Your task to perform on an android device: set an alarm Image 0: 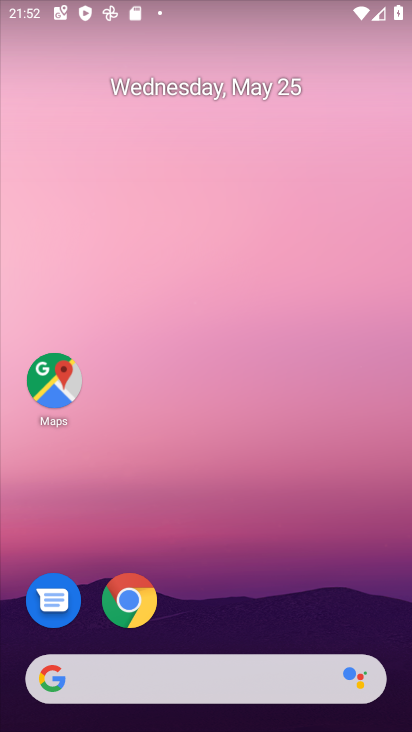
Step 0: drag from (324, 616) to (338, 254)
Your task to perform on an android device: set an alarm Image 1: 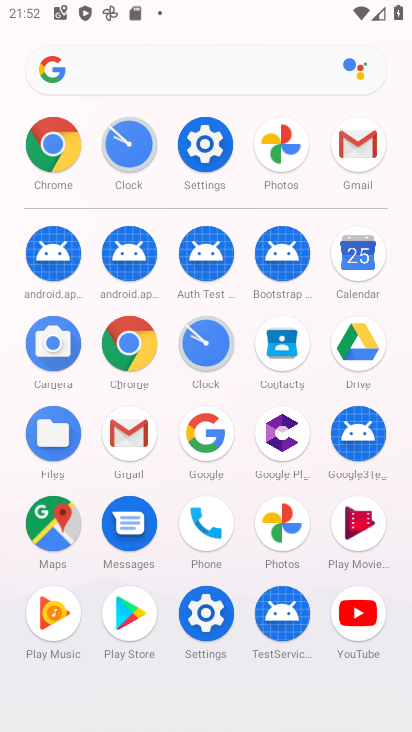
Step 1: click (205, 347)
Your task to perform on an android device: set an alarm Image 2: 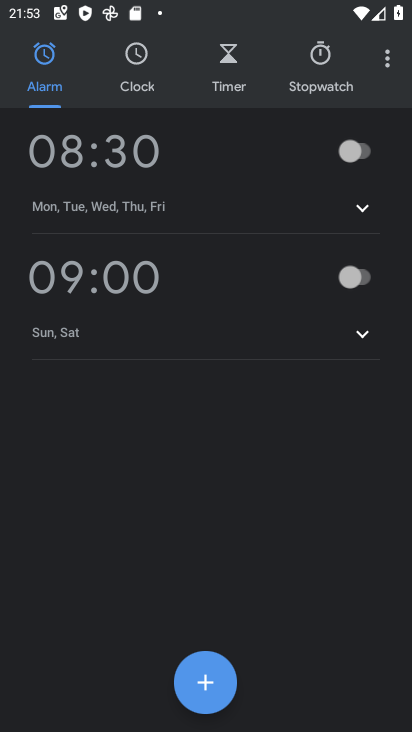
Step 2: click (218, 686)
Your task to perform on an android device: set an alarm Image 3: 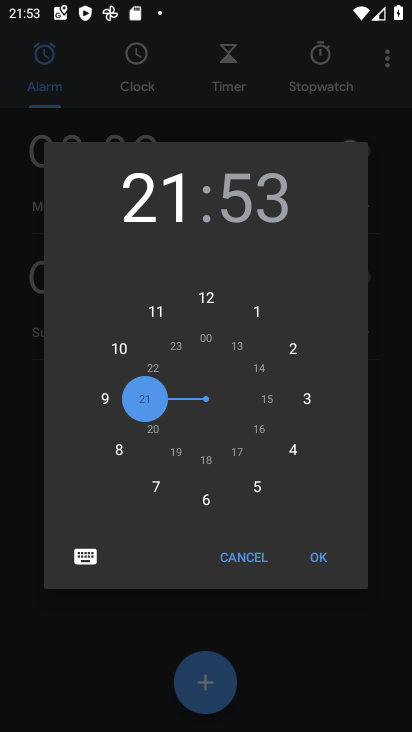
Step 3: click (324, 559)
Your task to perform on an android device: set an alarm Image 4: 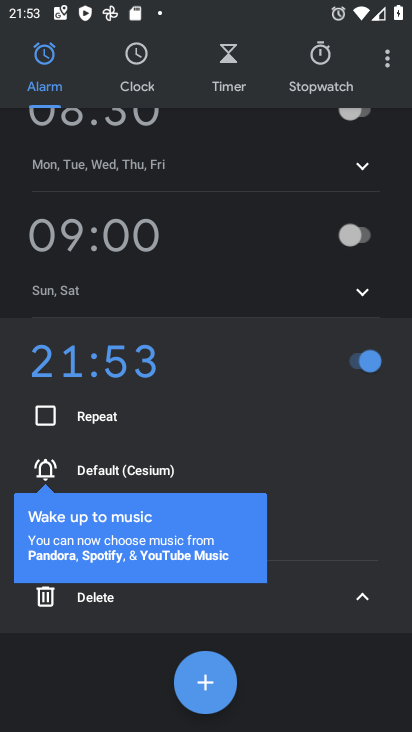
Step 4: task complete